Your task to perform on an android device: refresh tabs in the chrome app Image 0: 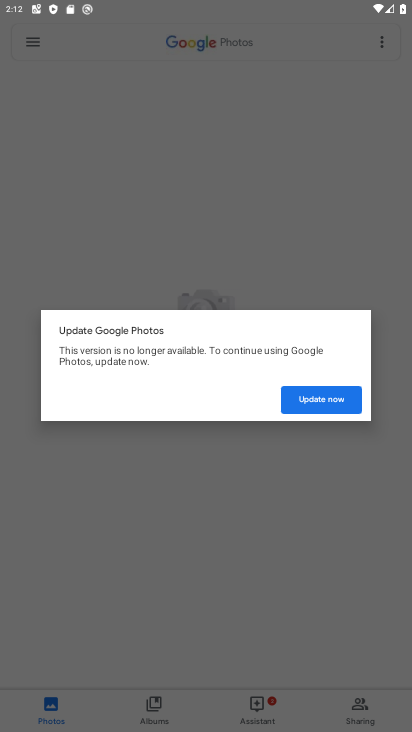
Step 0: press back button
Your task to perform on an android device: refresh tabs in the chrome app Image 1: 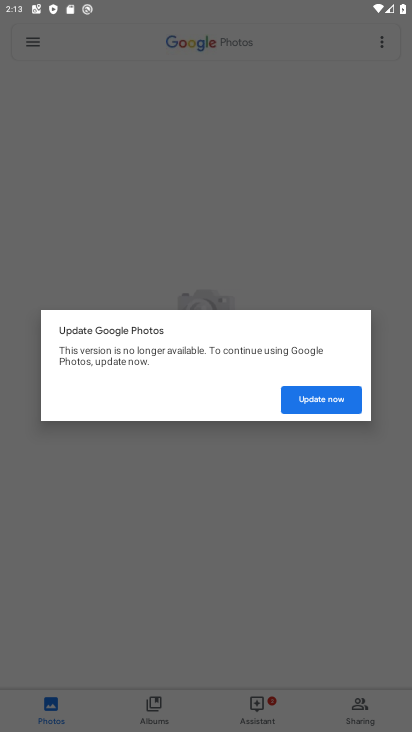
Step 1: press back button
Your task to perform on an android device: refresh tabs in the chrome app Image 2: 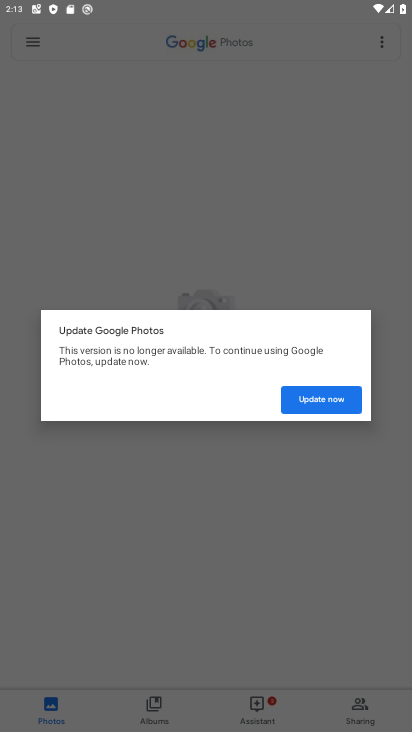
Step 2: press home button
Your task to perform on an android device: refresh tabs in the chrome app Image 3: 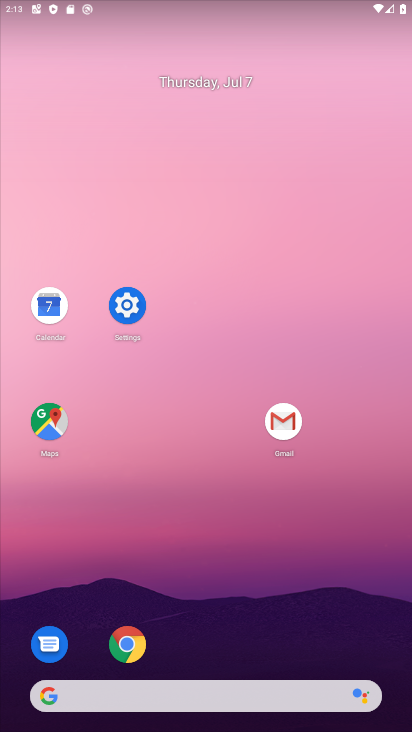
Step 3: click (125, 652)
Your task to perform on an android device: refresh tabs in the chrome app Image 4: 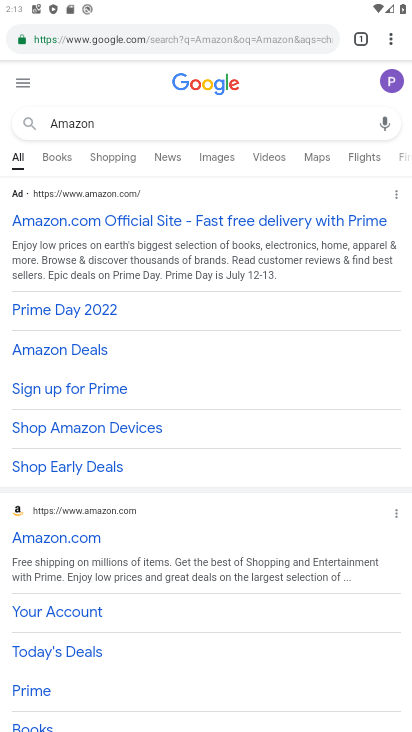
Step 4: click (392, 40)
Your task to perform on an android device: refresh tabs in the chrome app Image 5: 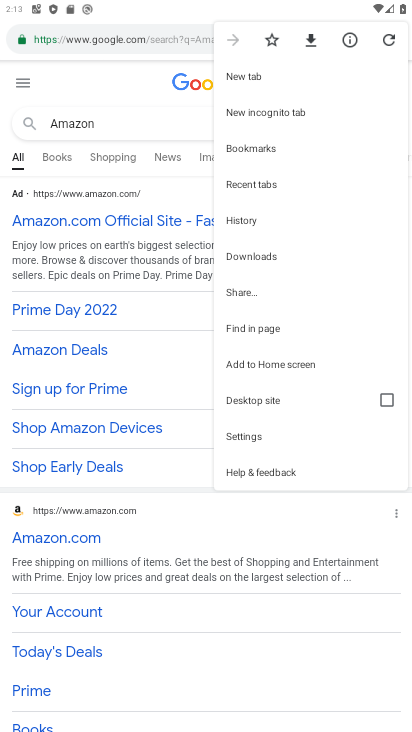
Step 5: click (389, 35)
Your task to perform on an android device: refresh tabs in the chrome app Image 6: 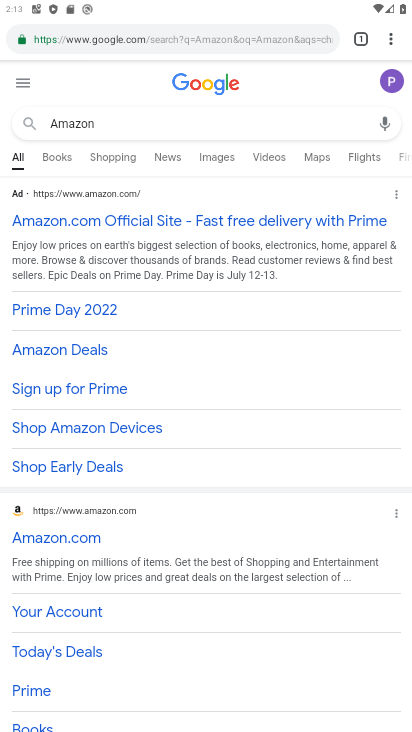
Step 6: task complete